Your task to perform on an android device: Search for seafood restaurants on Google Maps Image 0: 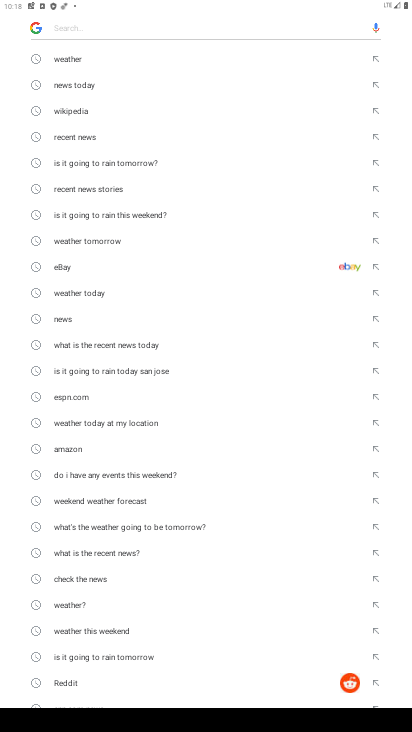
Step 0: press home button
Your task to perform on an android device: Search for seafood restaurants on Google Maps Image 1: 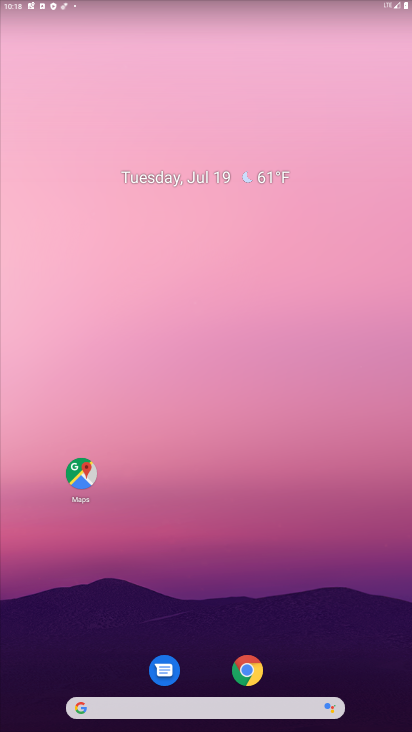
Step 1: click (81, 475)
Your task to perform on an android device: Search for seafood restaurants on Google Maps Image 2: 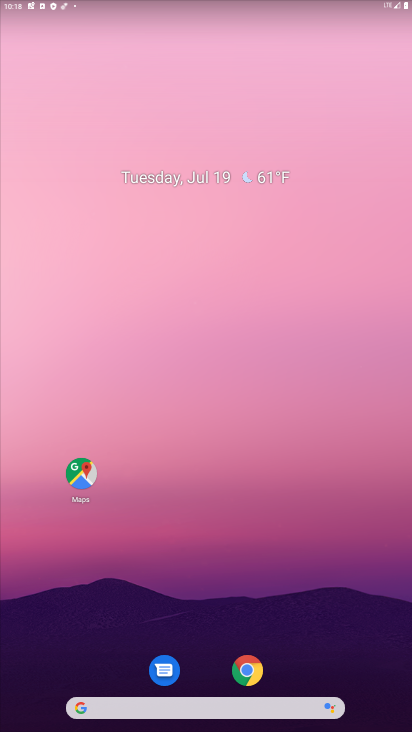
Step 2: click (81, 475)
Your task to perform on an android device: Search for seafood restaurants on Google Maps Image 3: 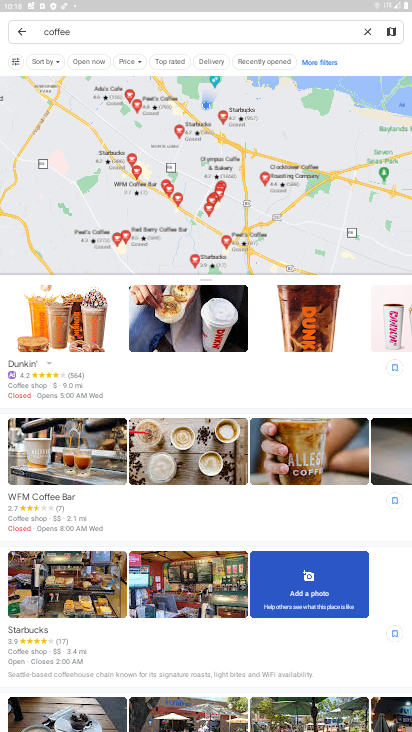
Step 3: click (372, 36)
Your task to perform on an android device: Search for seafood restaurants on Google Maps Image 4: 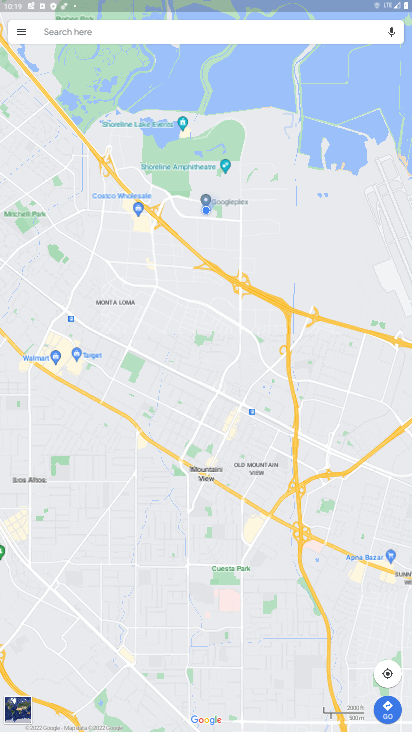
Step 4: click (218, 34)
Your task to perform on an android device: Search for seafood restaurants on Google Maps Image 5: 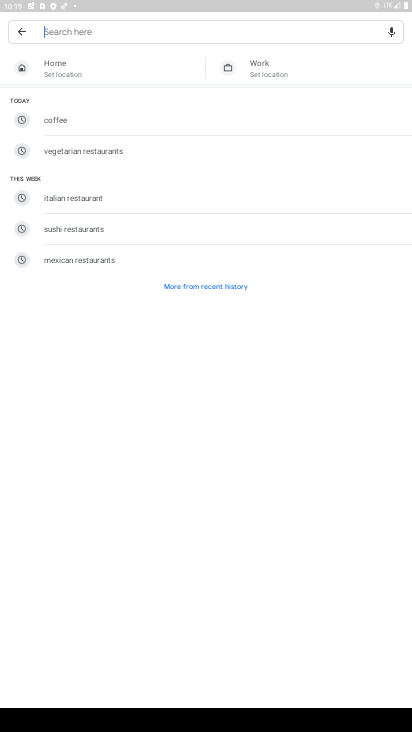
Step 5: type "seafood res"
Your task to perform on an android device: Search for seafood restaurants on Google Maps Image 6: 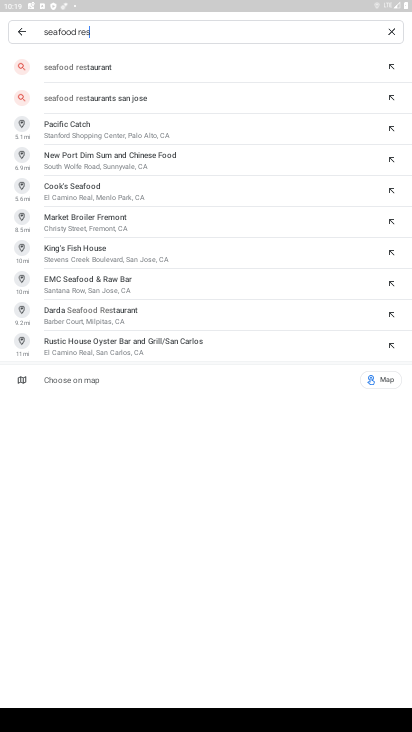
Step 6: click (178, 65)
Your task to perform on an android device: Search for seafood restaurants on Google Maps Image 7: 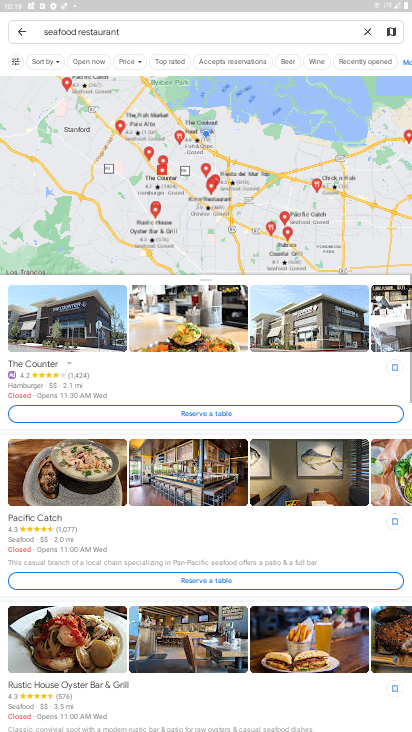
Step 7: task complete